Your task to perform on an android device: Open display settings Image 0: 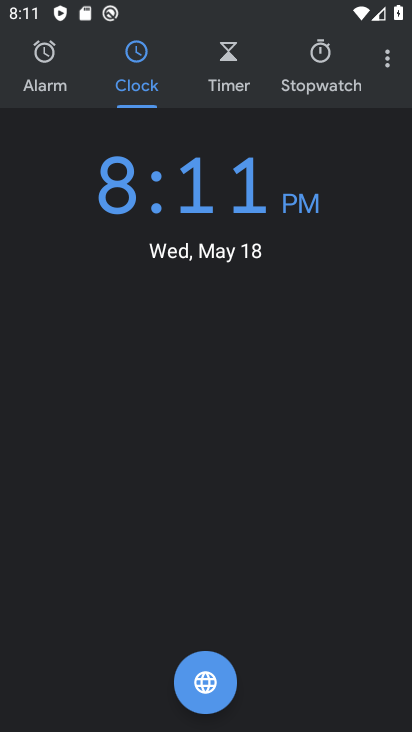
Step 0: press home button
Your task to perform on an android device: Open display settings Image 1: 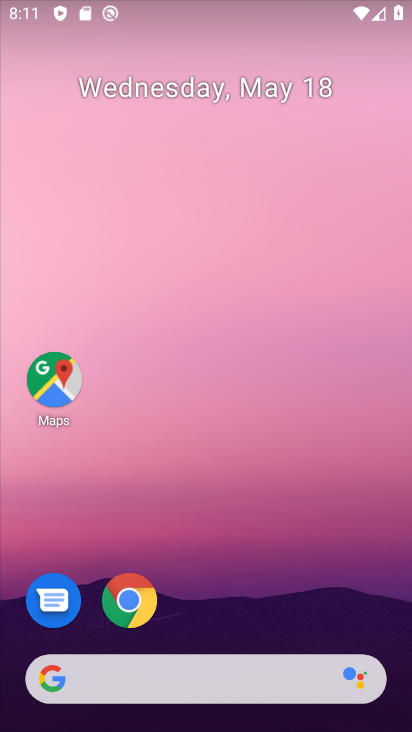
Step 1: drag from (59, 616) to (297, 287)
Your task to perform on an android device: Open display settings Image 2: 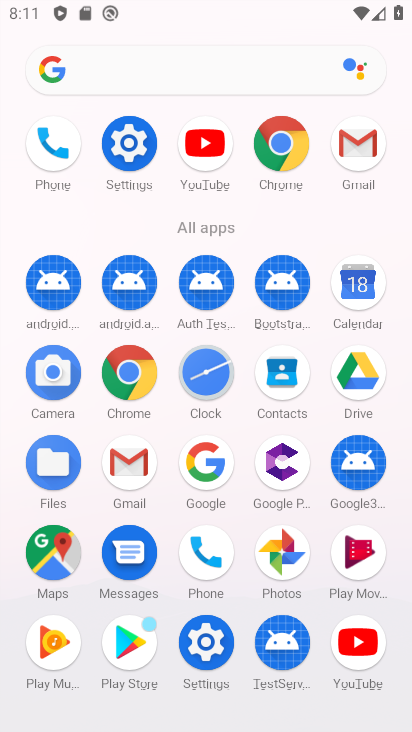
Step 2: click (134, 152)
Your task to perform on an android device: Open display settings Image 3: 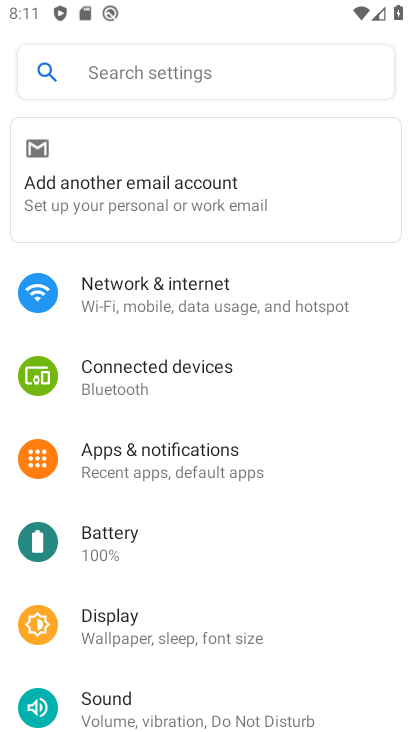
Step 3: click (162, 638)
Your task to perform on an android device: Open display settings Image 4: 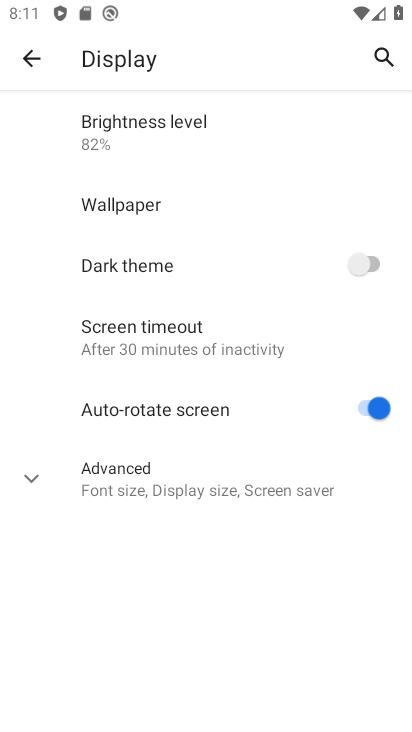
Step 4: task complete